Your task to perform on an android device: Search for Mexican restaurants on Maps Image 0: 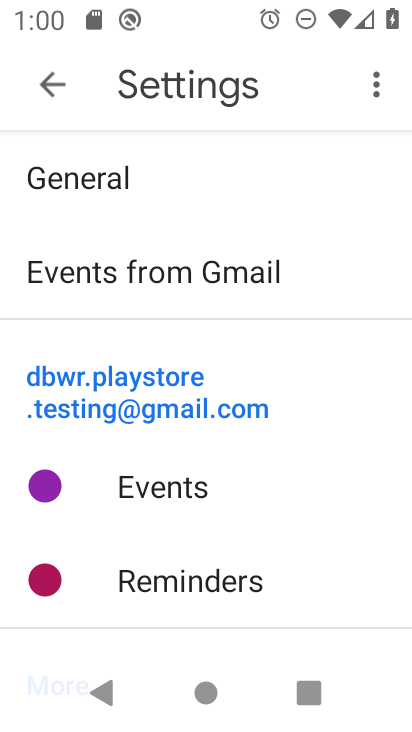
Step 0: press home button
Your task to perform on an android device: Search for Mexican restaurants on Maps Image 1: 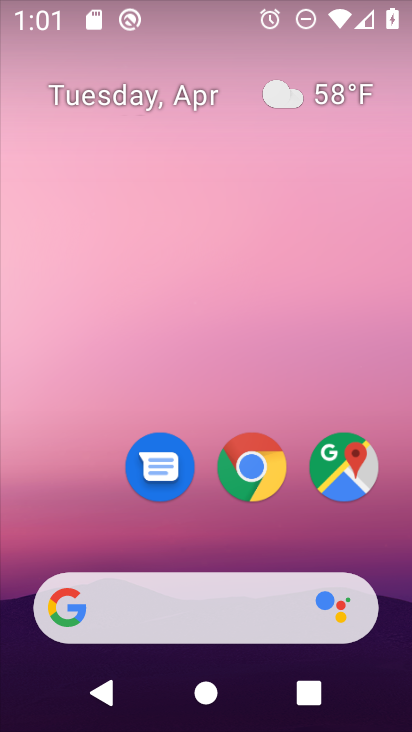
Step 1: click (355, 462)
Your task to perform on an android device: Search for Mexican restaurants on Maps Image 2: 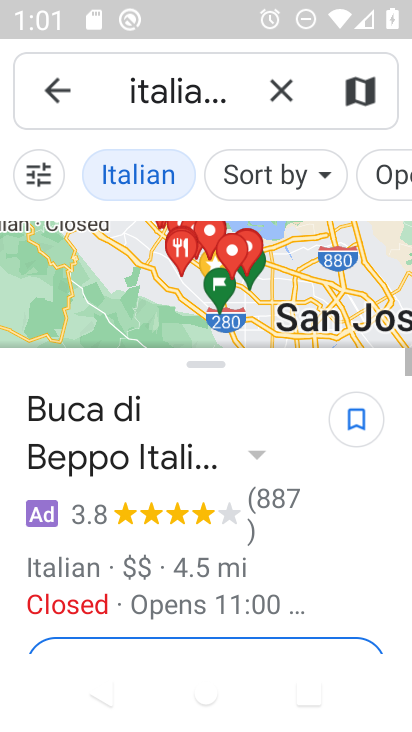
Step 2: click (287, 93)
Your task to perform on an android device: Search for Mexican restaurants on Maps Image 3: 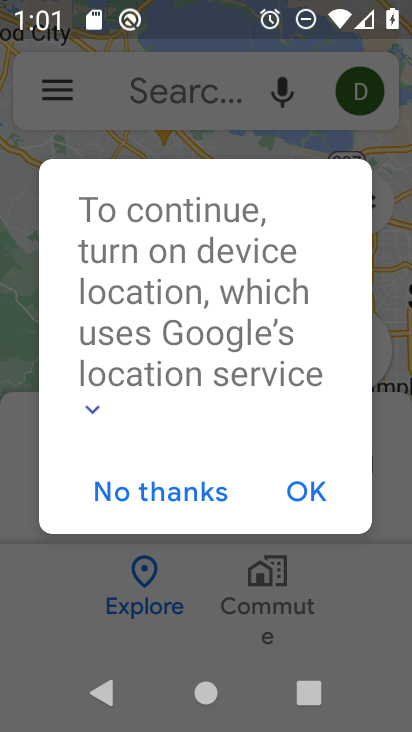
Step 3: click (316, 502)
Your task to perform on an android device: Search for Mexican restaurants on Maps Image 4: 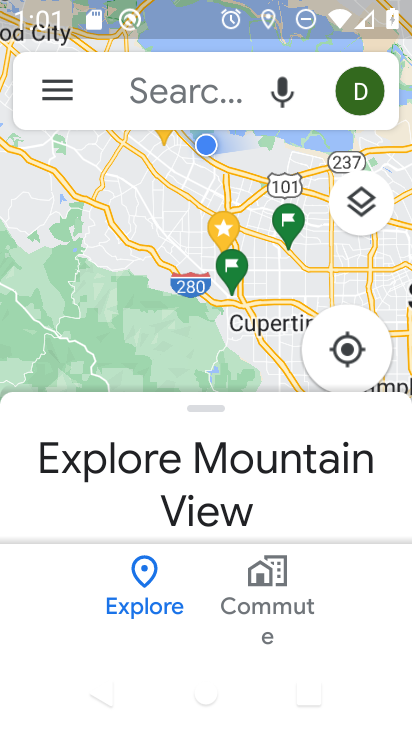
Step 4: click (188, 88)
Your task to perform on an android device: Search for Mexican restaurants on Maps Image 5: 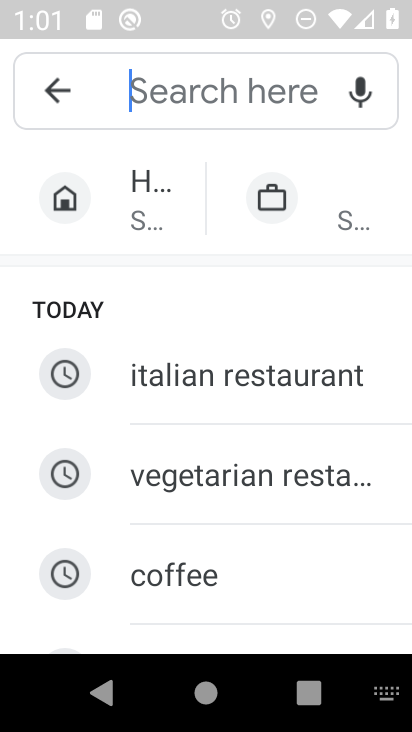
Step 5: type "mexican restaurant"
Your task to perform on an android device: Search for Mexican restaurants on Maps Image 6: 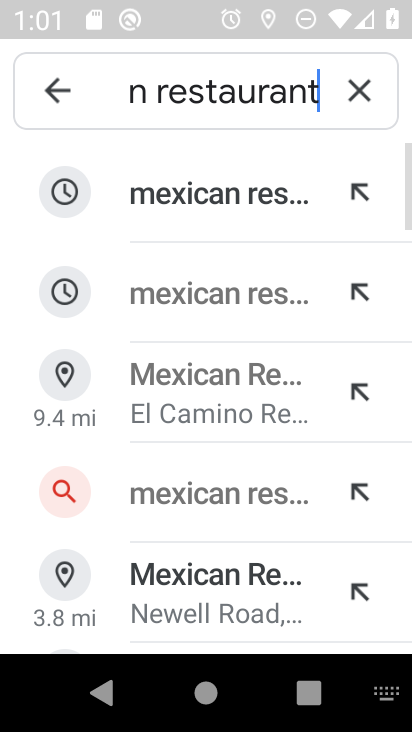
Step 6: click (62, 482)
Your task to perform on an android device: Search for Mexican restaurants on Maps Image 7: 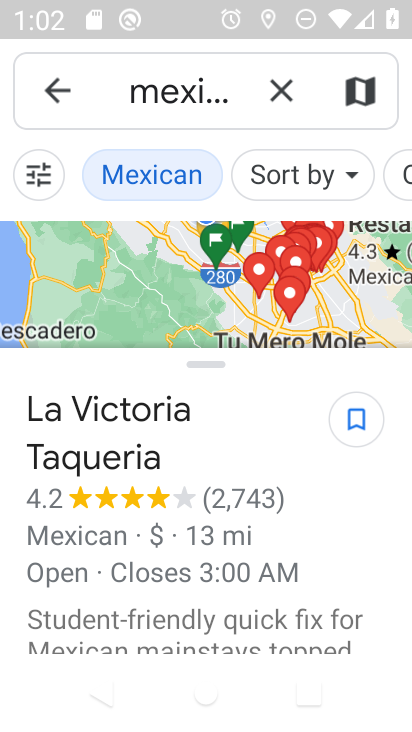
Step 7: task complete